Your task to perform on an android device: open sync settings in chrome Image 0: 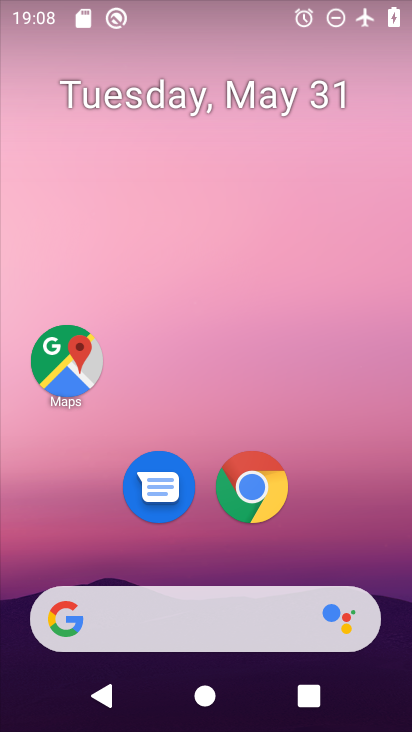
Step 0: click (251, 486)
Your task to perform on an android device: open sync settings in chrome Image 1: 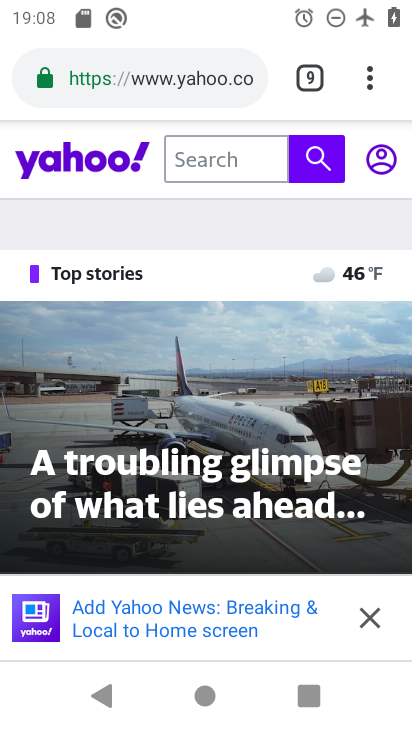
Step 1: click (366, 76)
Your task to perform on an android device: open sync settings in chrome Image 2: 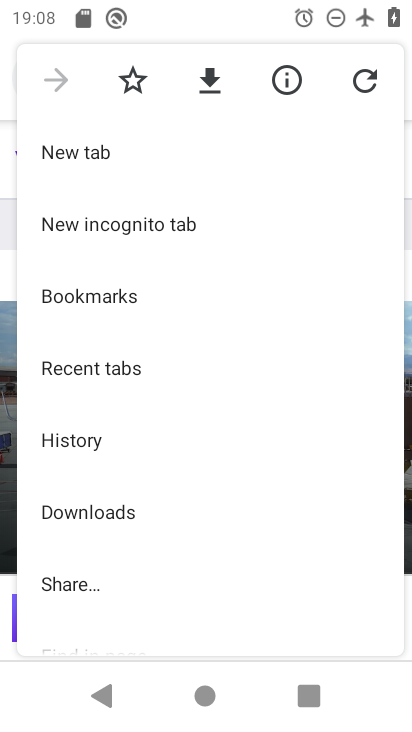
Step 2: drag from (217, 433) to (132, 64)
Your task to perform on an android device: open sync settings in chrome Image 3: 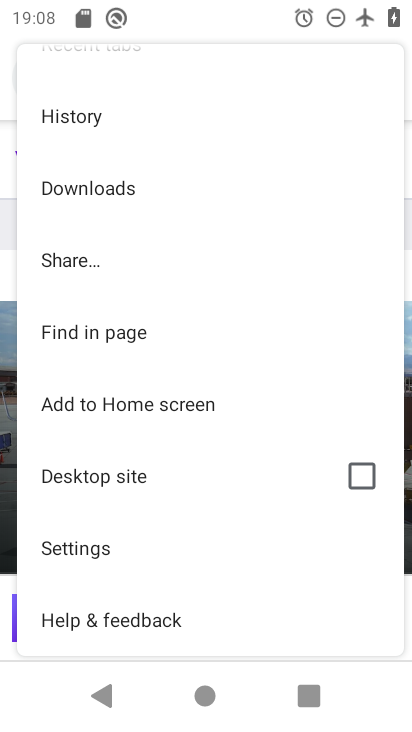
Step 3: click (69, 553)
Your task to perform on an android device: open sync settings in chrome Image 4: 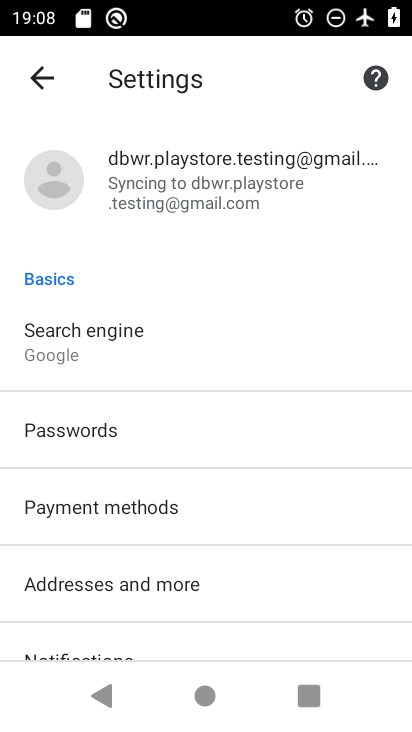
Step 4: click (190, 175)
Your task to perform on an android device: open sync settings in chrome Image 5: 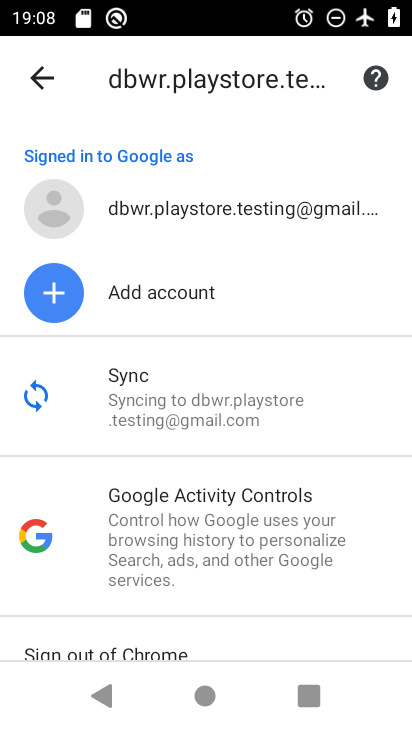
Step 5: click (147, 388)
Your task to perform on an android device: open sync settings in chrome Image 6: 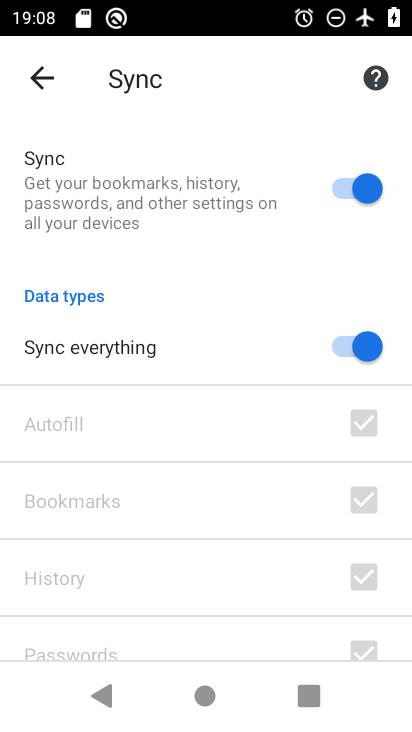
Step 6: task complete